Your task to perform on an android device: turn off airplane mode Image 0: 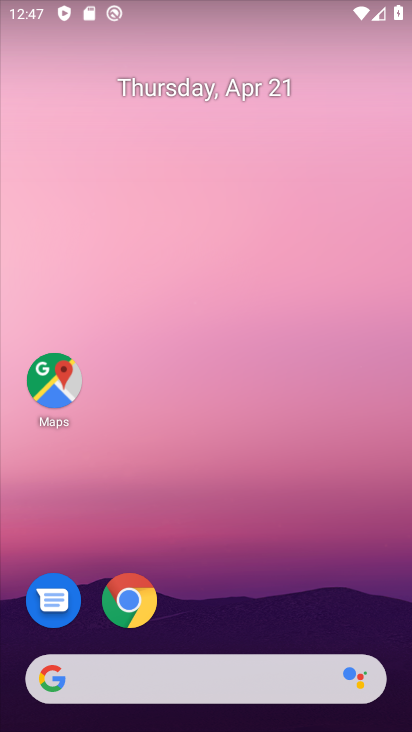
Step 0: drag from (395, 643) to (316, 106)
Your task to perform on an android device: turn off airplane mode Image 1: 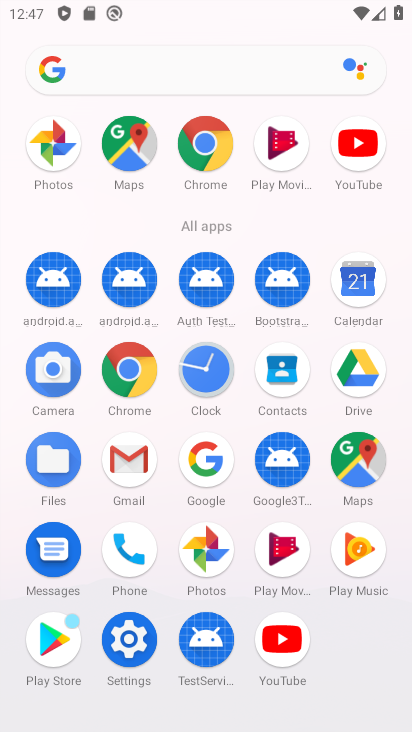
Step 1: click (130, 639)
Your task to perform on an android device: turn off airplane mode Image 2: 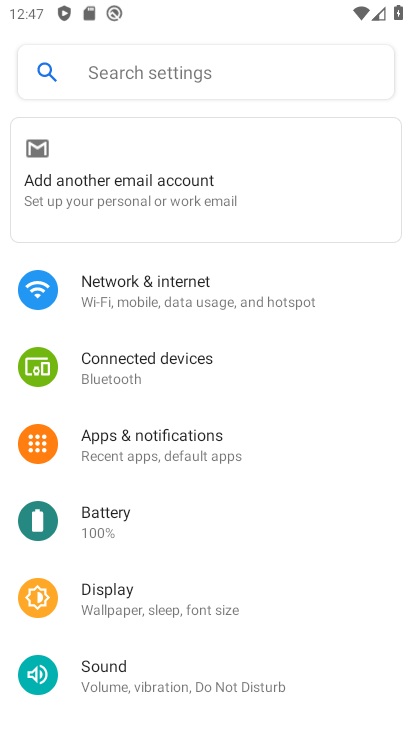
Step 2: click (142, 288)
Your task to perform on an android device: turn off airplane mode Image 3: 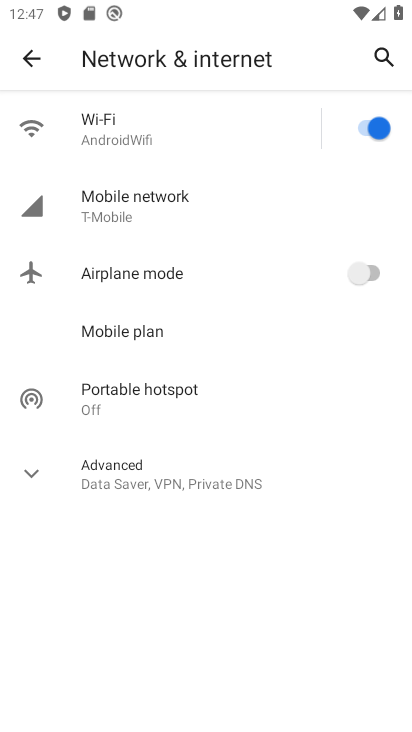
Step 3: task complete